Your task to perform on an android device: toggle pop-ups in chrome Image 0: 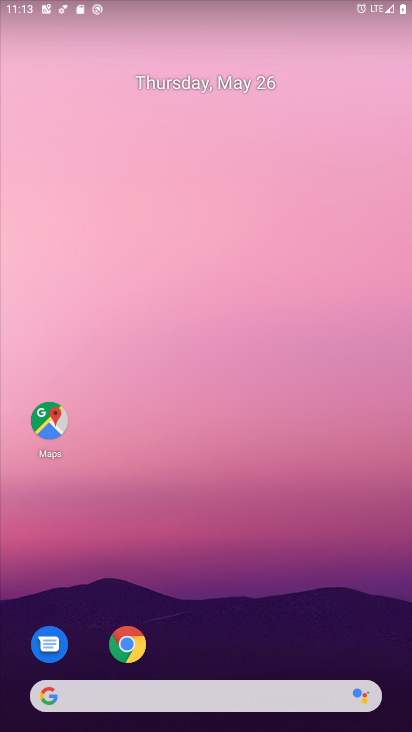
Step 0: drag from (329, 648) to (367, 169)
Your task to perform on an android device: toggle pop-ups in chrome Image 1: 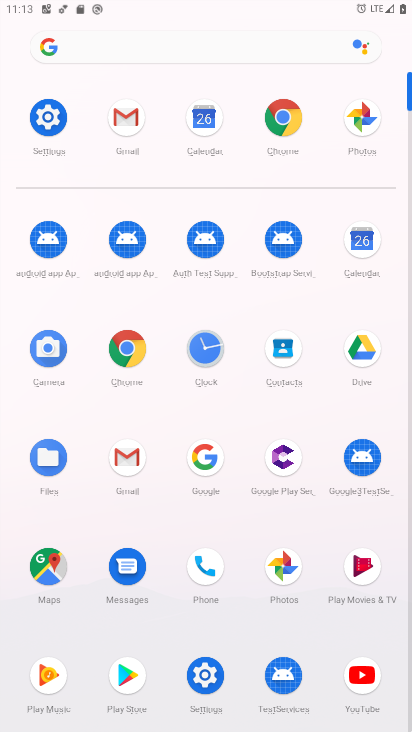
Step 1: click (131, 355)
Your task to perform on an android device: toggle pop-ups in chrome Image 2: 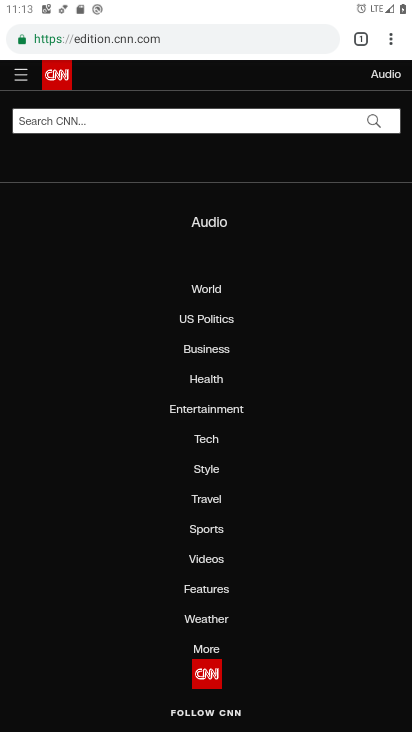
Step 2: click (388, 43)
Your task to perform on an android device: toggle pop-ups in chrome Image 3: 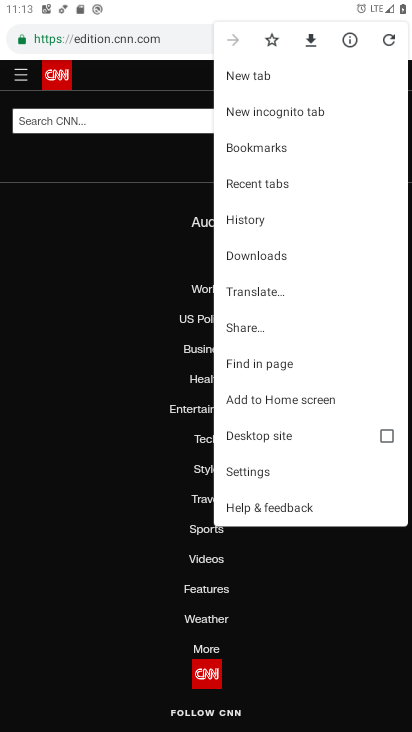
Step 3: click (278, 479)
Your task to perform on an android device: toggle pop-ups in chrome Image 4: 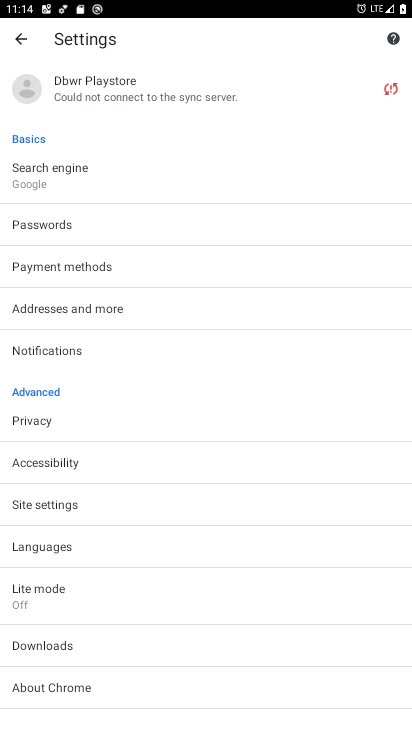
Step 4: click (260, 510)
Your task to perform on an android device: toggle pop-ups in chrome Image 5: 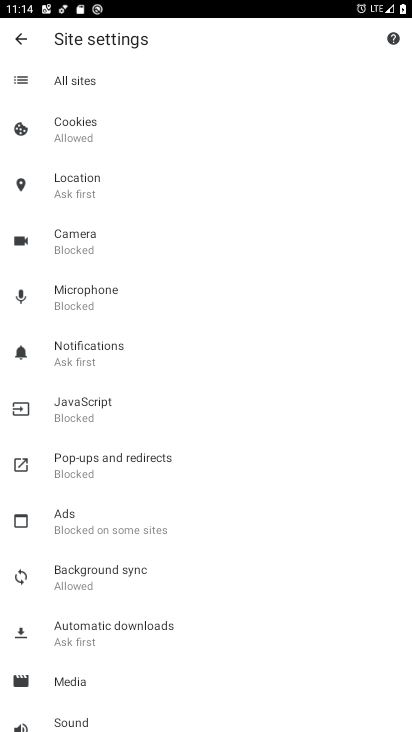
Step 5: click (192, 475)
Your task to perform on an android device: toggle pop-ups in chrome Image 6: 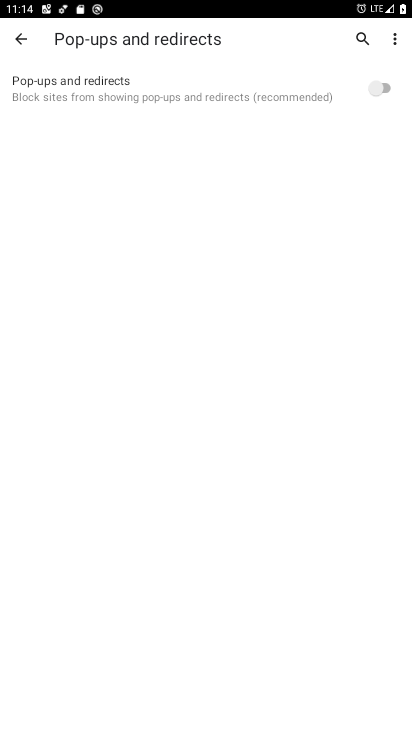
Step 6: click (373, 87)
Your task to perform on an android device: toggle pop-ups in chrome Image 7: 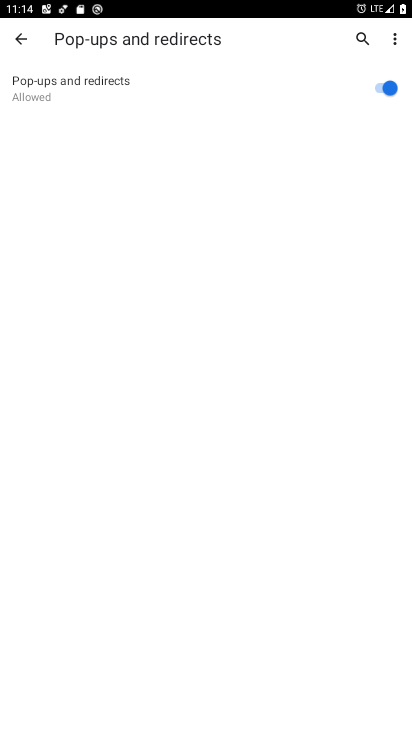
Step 7: task complete